Your task to perform on an android device: visit the assistant section in the google photos Image 0: 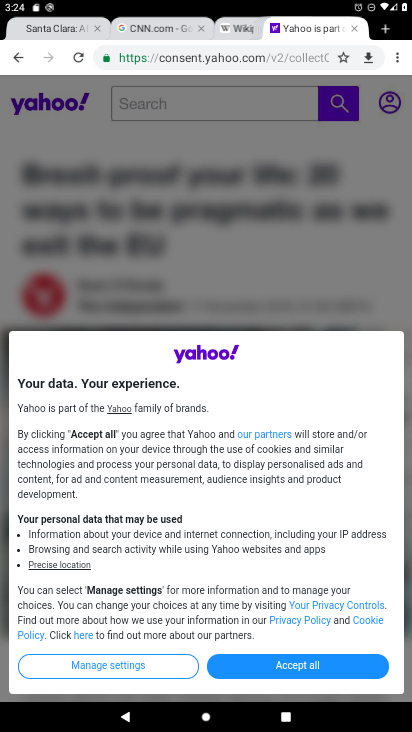
Step 0: press home button
Your task to perform on an android device: visit the assistant section in the google photos Image 1: 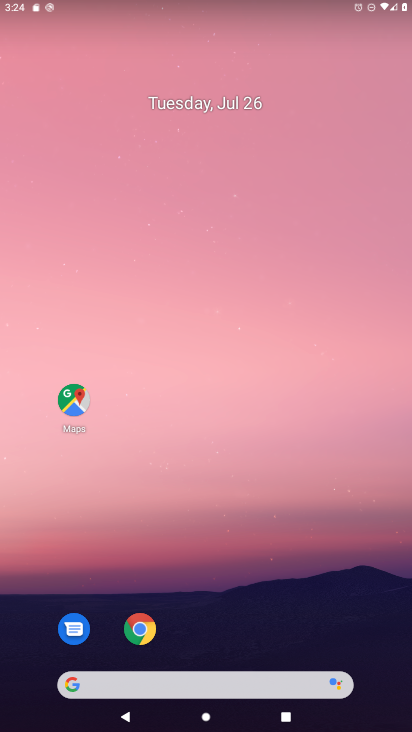
Step 1: drag from (207, 607) to (202, 222)
Your task to perform on an android device: visit the assistant section in the google photos Image 2: 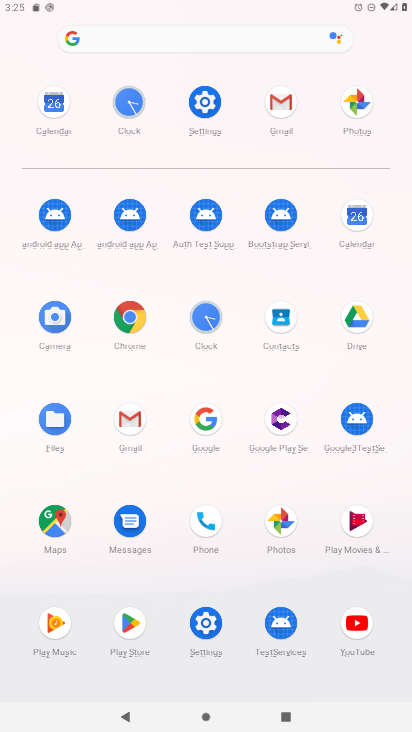
Step 2: click (282, 531)
Your task to perform on an android device: visit the assistant section in the google photos Image 3: 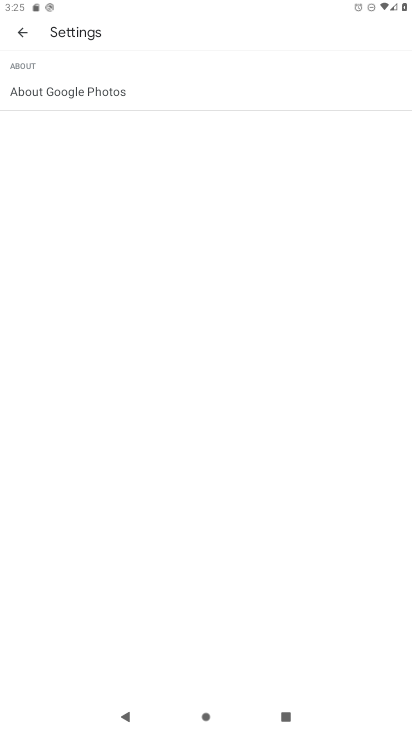
Step 3: click (18, 36)
Your task to perform on an android device: visit the assistant section in the google photos Image 4: 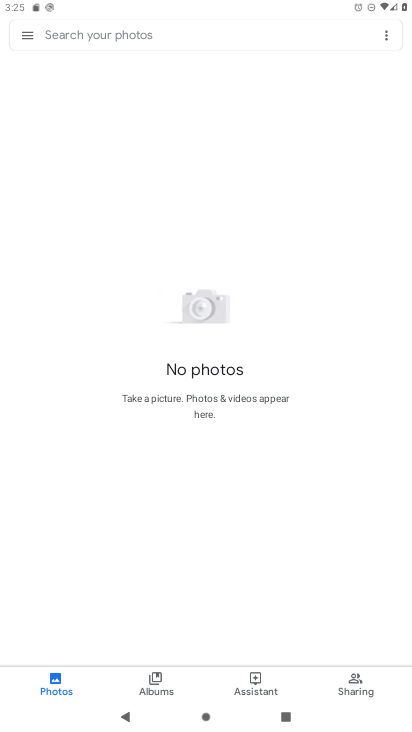
Step 4: click (258, 681)
Your task to perform on an android device: visit the assistant section in the google photos Image 5: 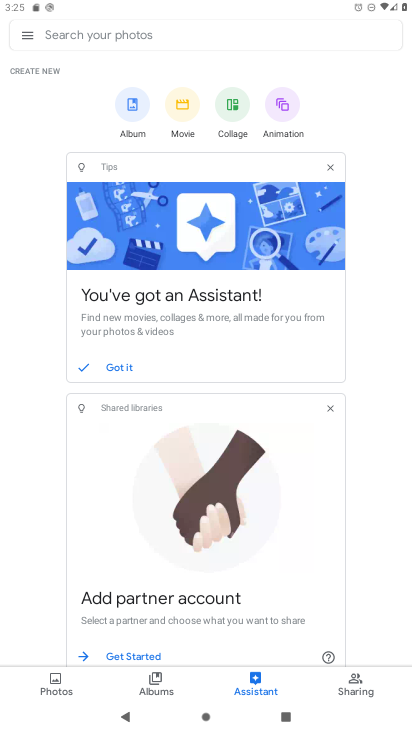
Step 5: task complete